Your task to perform on an android device: Search for the new iphone 13 pro on Etsy. Image 0: 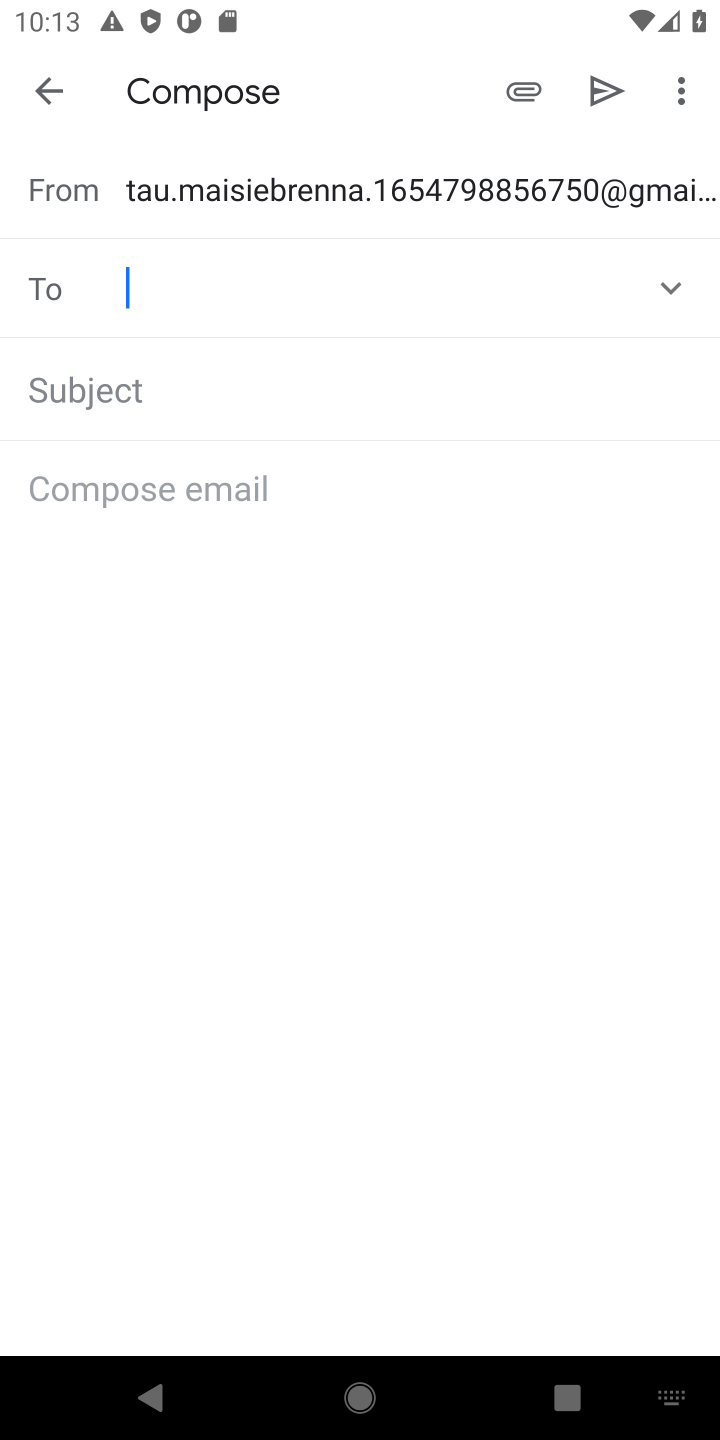
Step 0: press home button
Your task to perform on an android device: Search for the new iphone 13 pro on Etsy. Image 1: 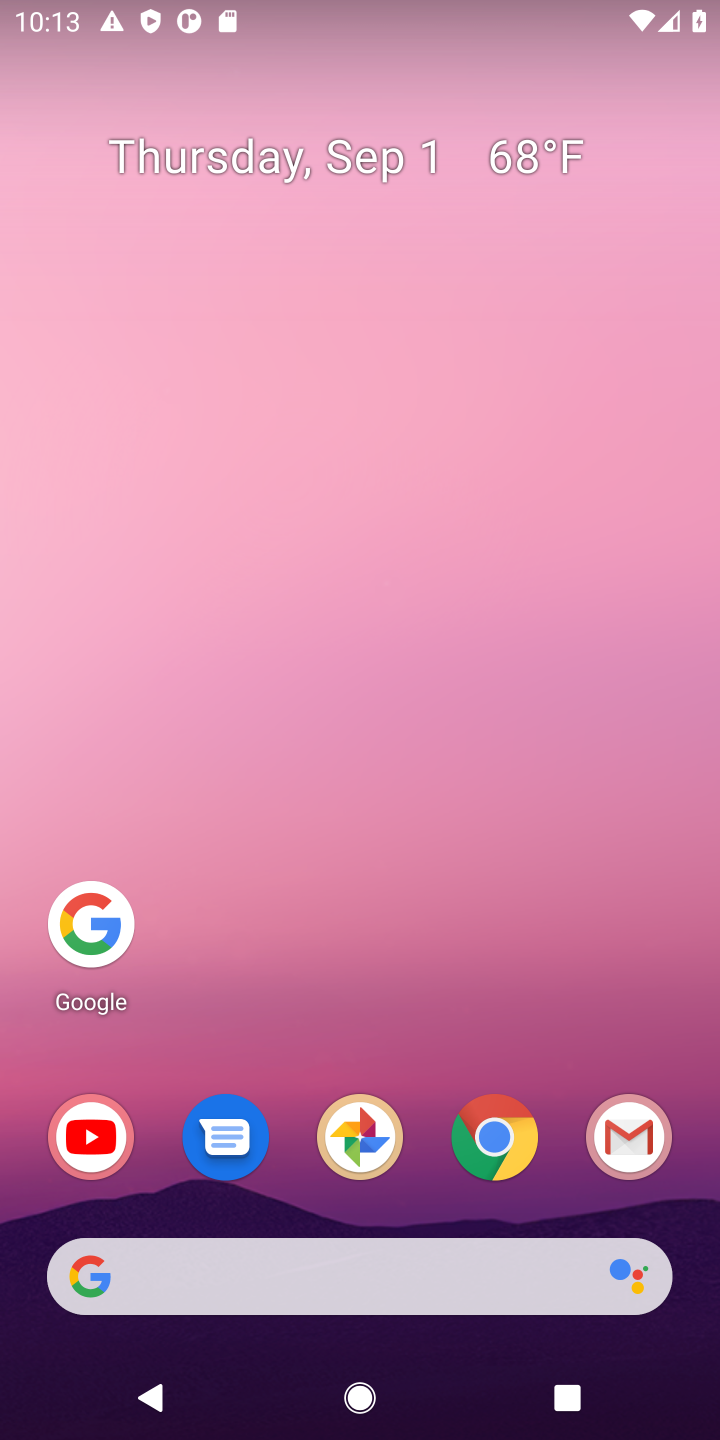
Step 1: click (89, 916)
Your task to perform on an android device: Search for the new iphone 13 pro on Etsy. Image 2: 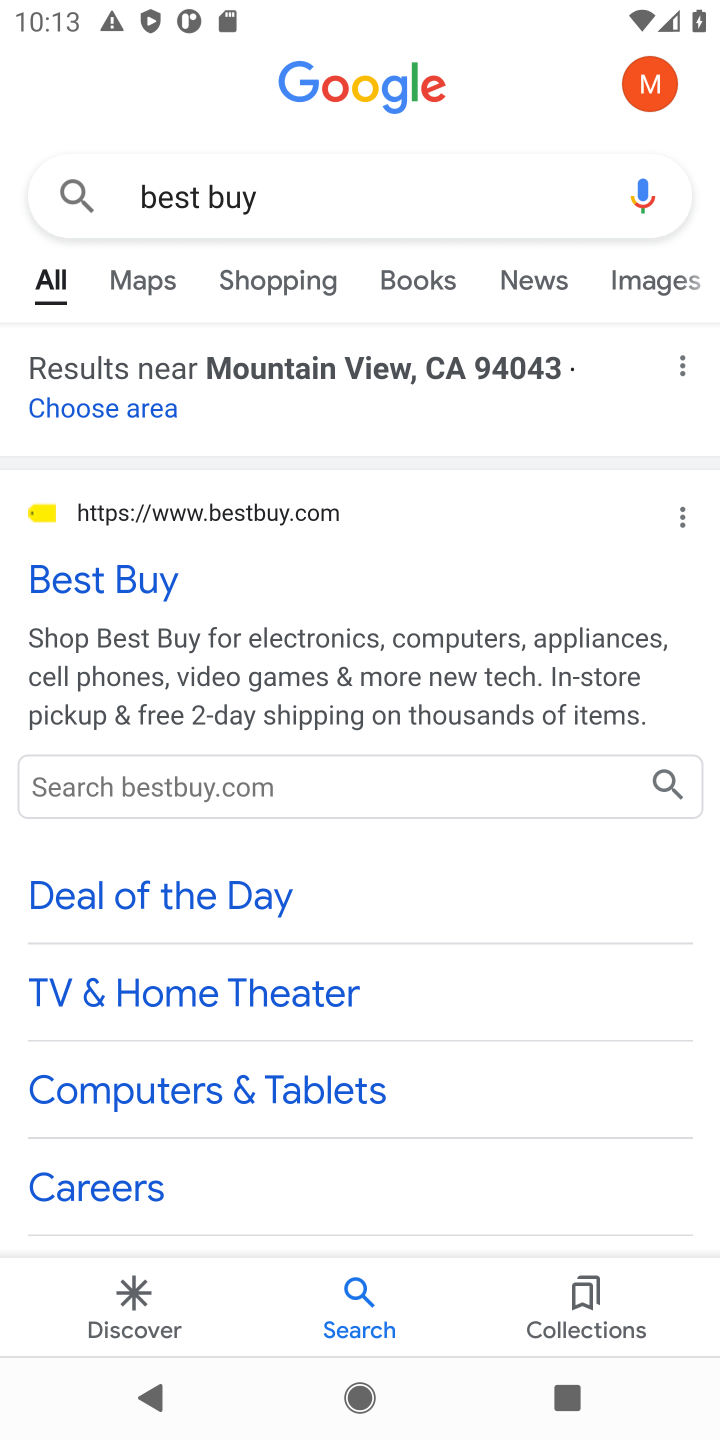
Step 2: click (277, 187)
Your task to perform on an android device: Search for the new iphone 13 pro on Etsy. Image 3: 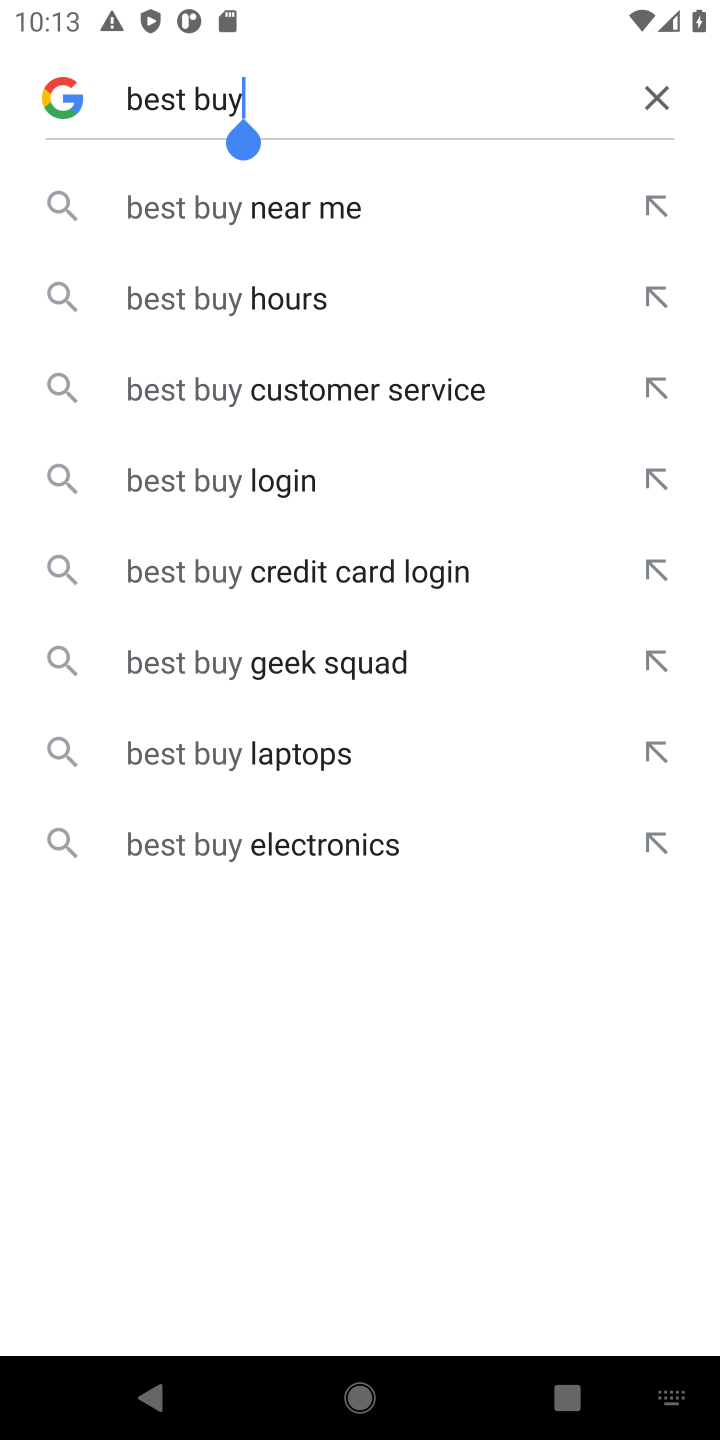
Step 3: click (652, 85)
Your task to perform on an android device: Search for the new iphone 13 pro on Etsy. Image 4: 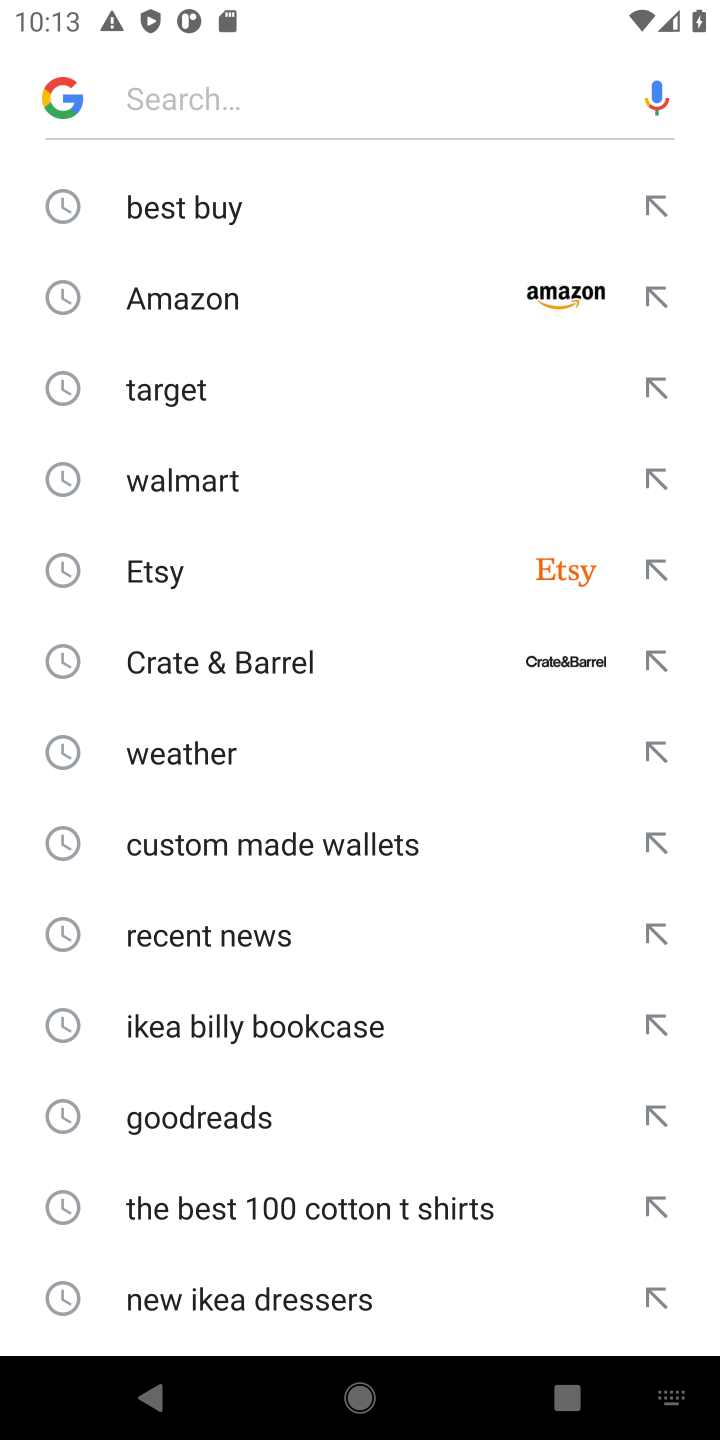
Step 4: click (161, 562)
Your task to perform on an android device: Search for the new iphone 13 pro on Etsy. Image 5: 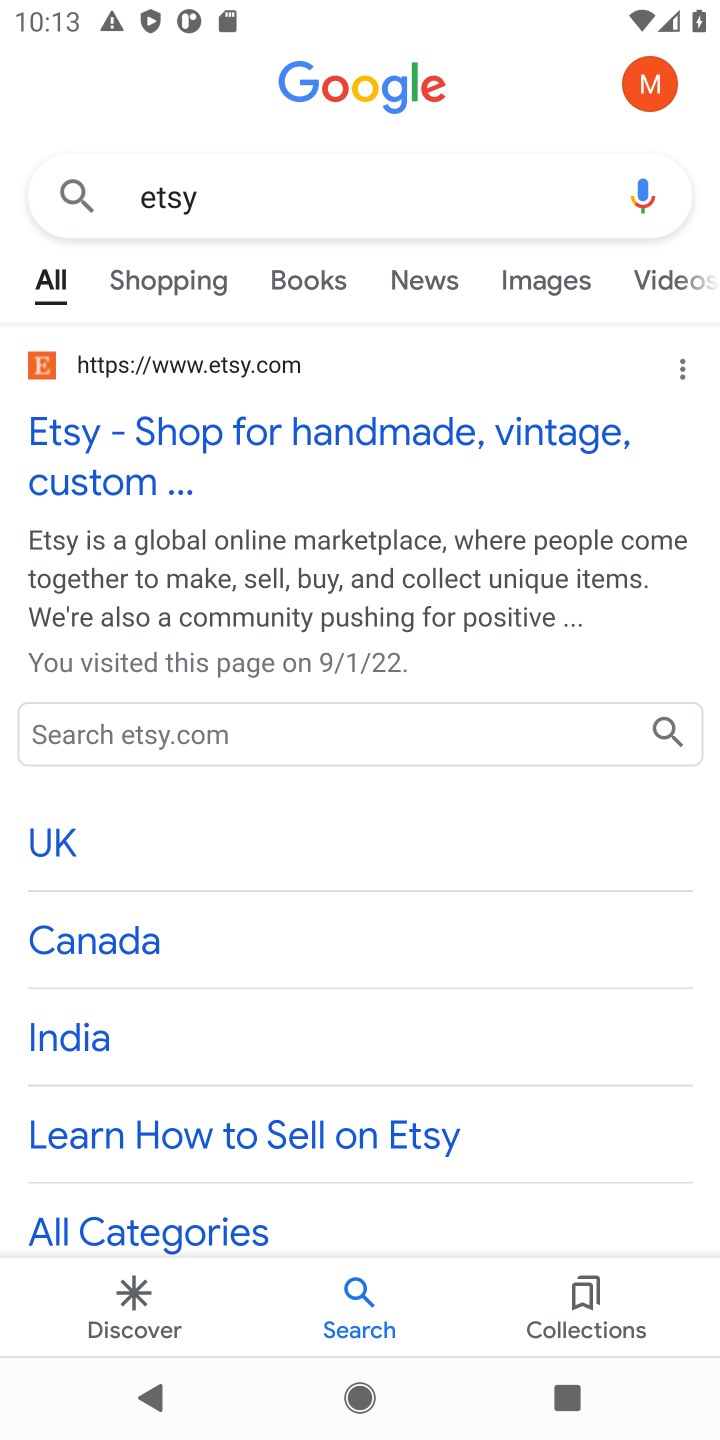
Step 5: click (55, 442)
Your task to perform on an android device: Search for the new iphone 13 pro on Etsy. Image 6: 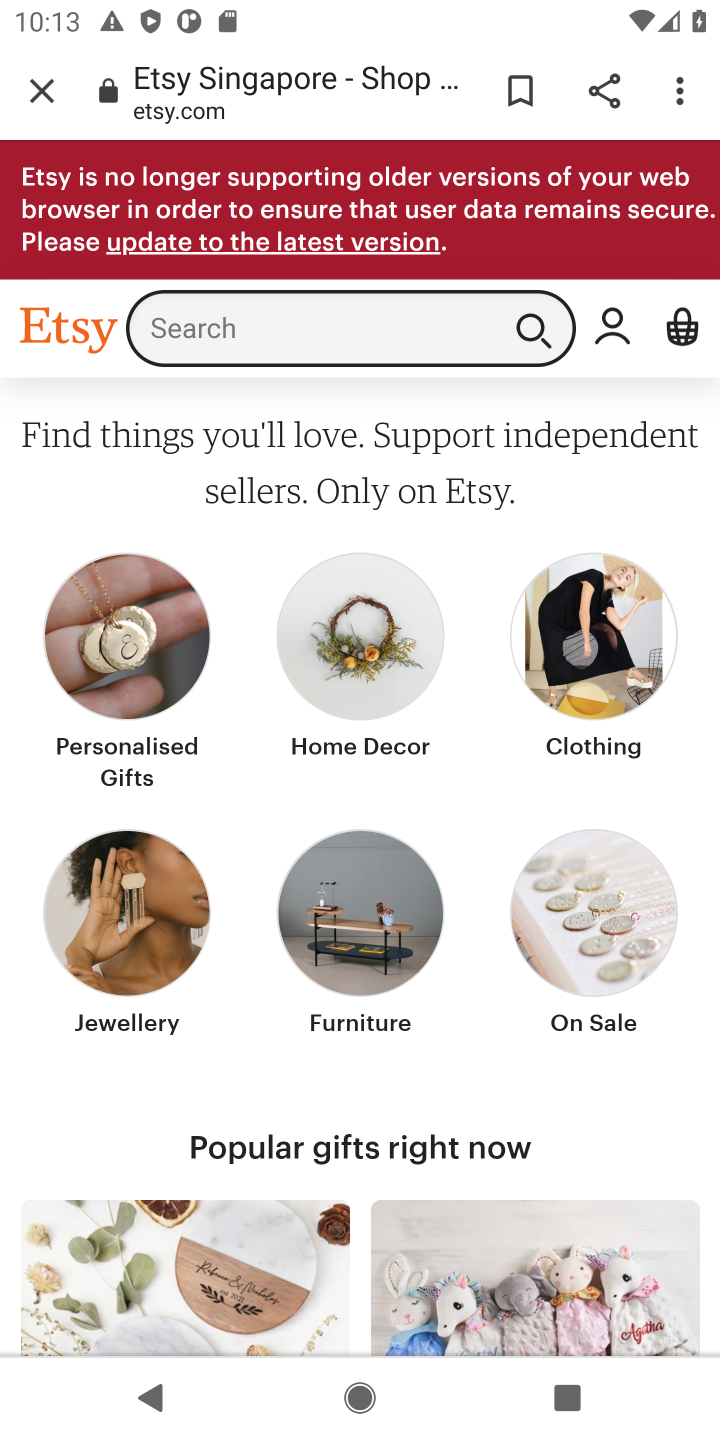
Step 6: click (188, 329)
Your task to perform on an android device: Search for the new iphone 13 pro on Etsy. Image 7: 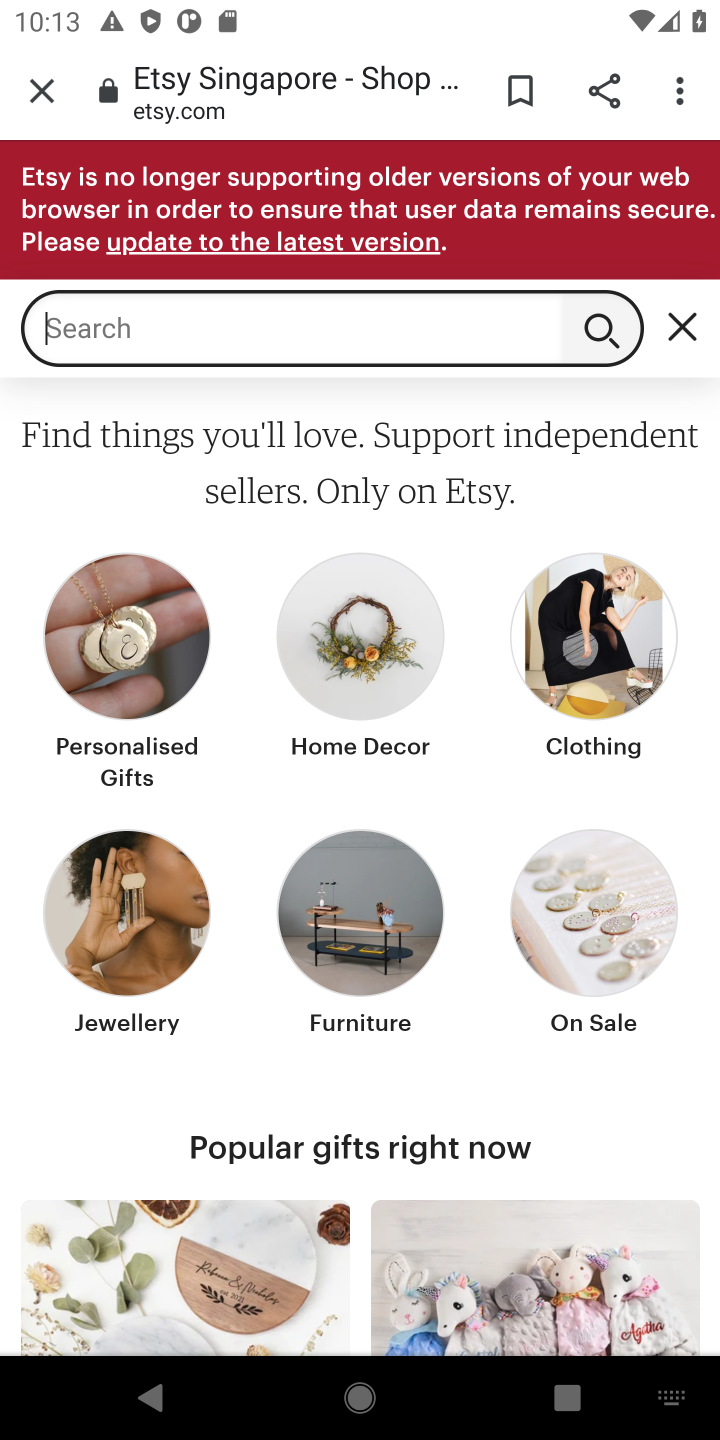
Step 7: type "iphone 13 pro"
Your task to perform on an android device: Search for the new iphone 13 pro on Etsy. Image 8: 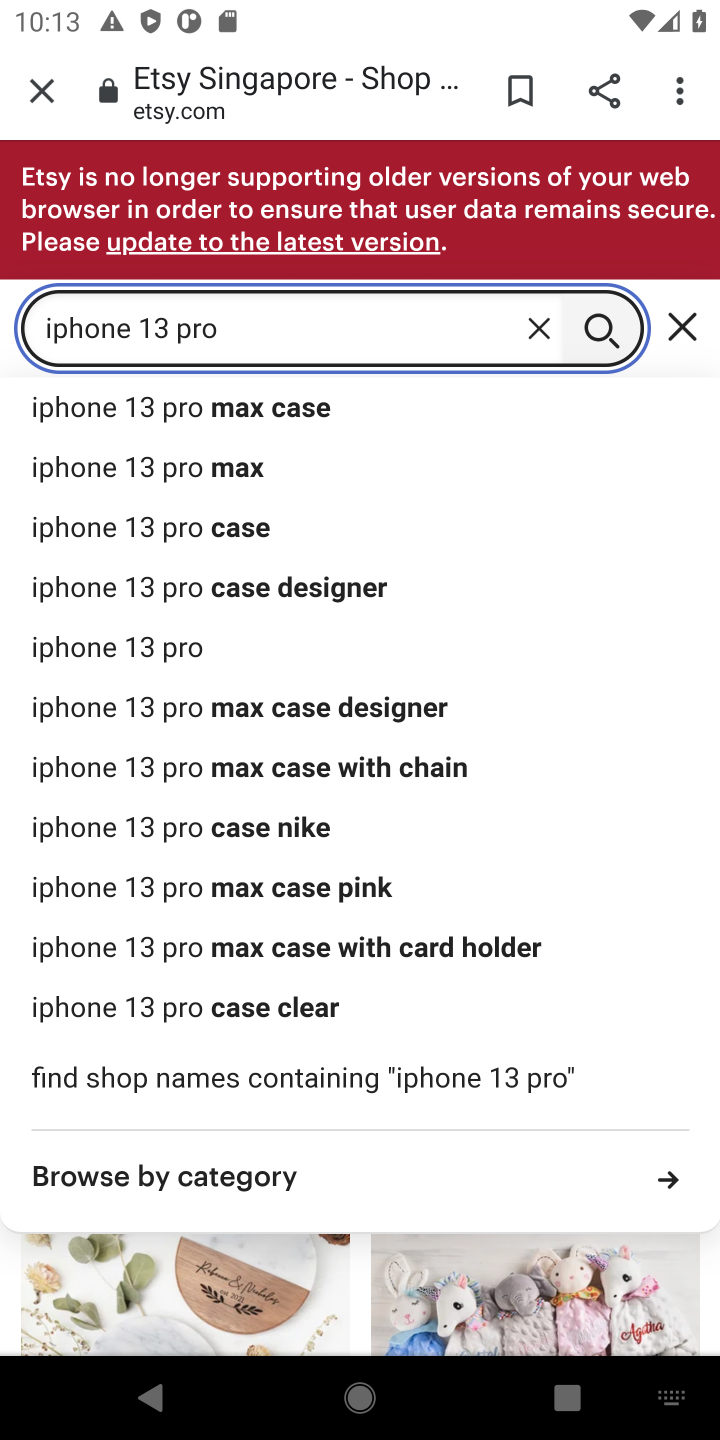
Step 8: click (594, 312)
Your task to perform on an android device: Search for the new iphone 13 pro on Etsy. Image 9: 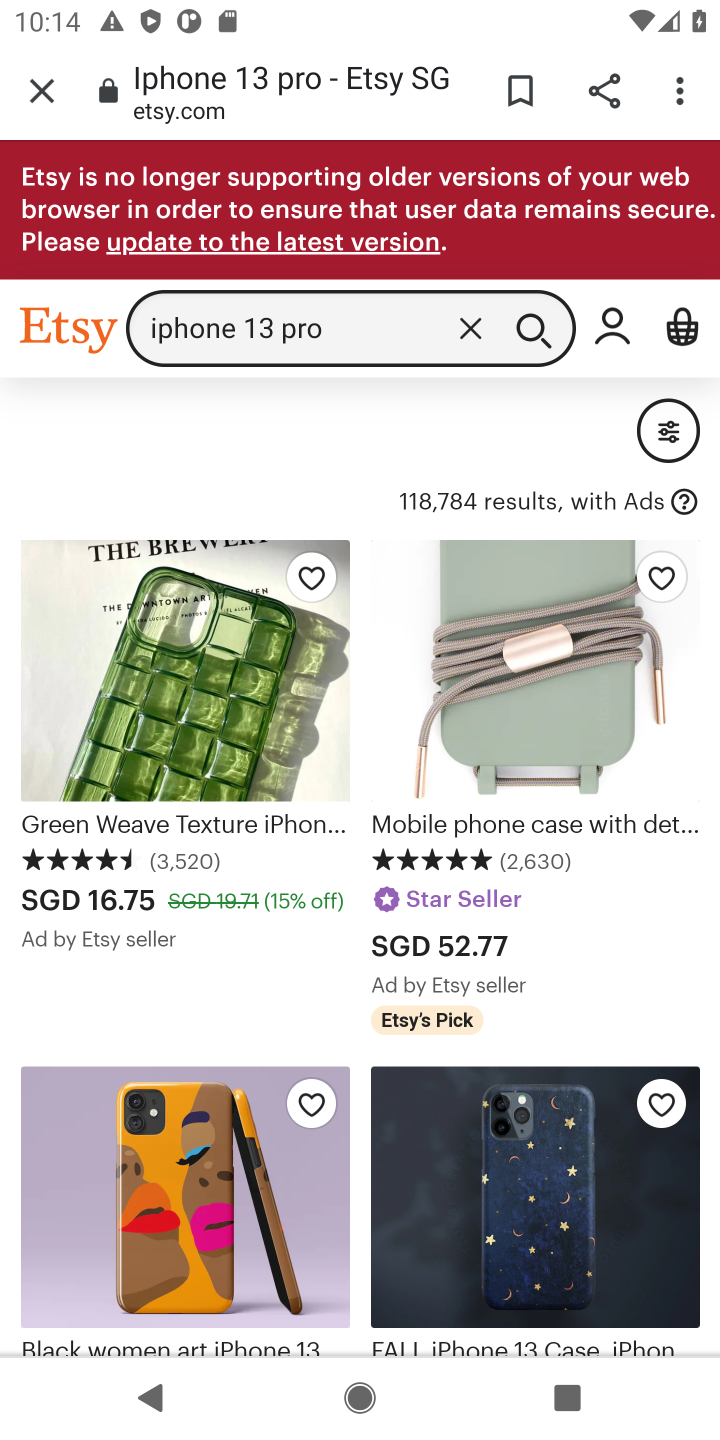
Step 9: task complete